Your task to perform on an android device: Open Chrome and go to settings Image 0: 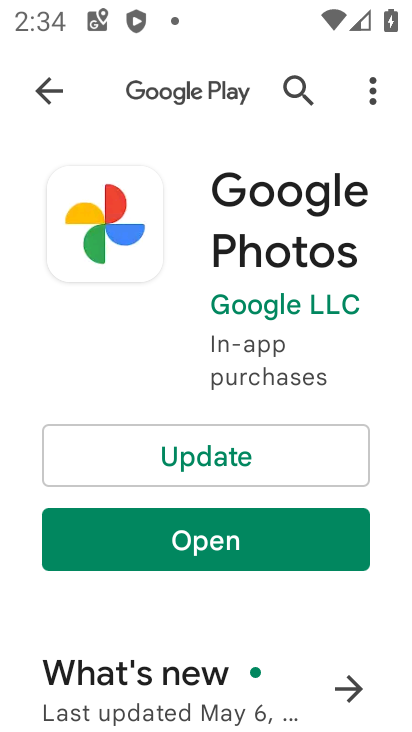
Step 0: press back button
Your task to perform on an android device: Open Chrome and go to settings Image 1: 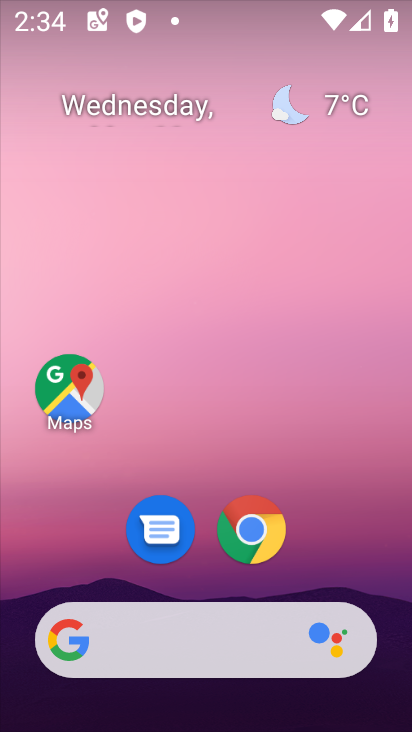
Step 1: click (242, 527)
Your task to perform on an android device: Open Chrome and go to settings Image 2: 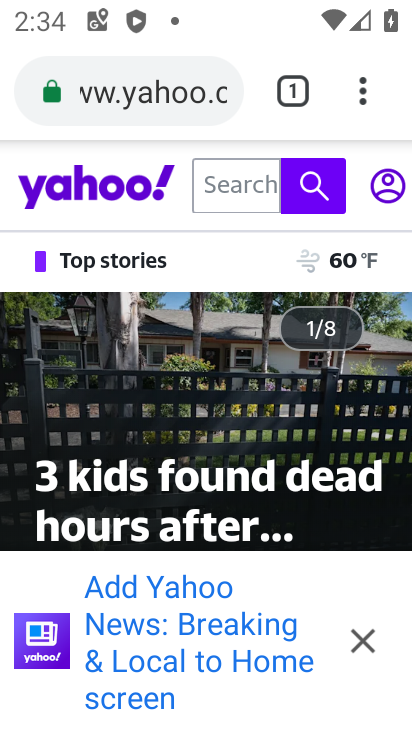
Step 2: click (369, 80)
Your task to perform on an android device: Open Chrome and go to settings Image 3: 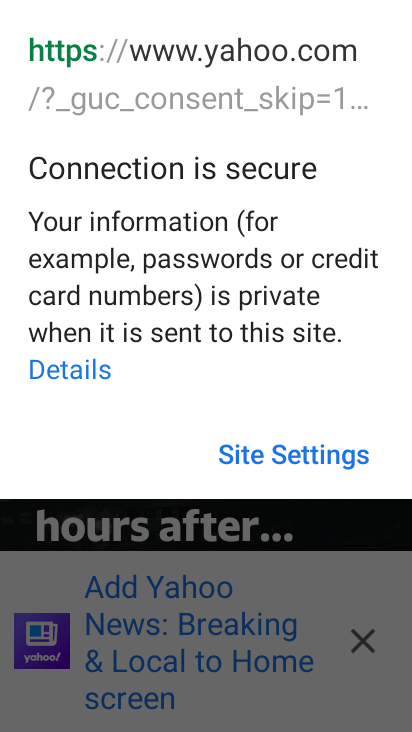
Step 3: press back button
Your task to perform on an android device: Open Chrome and go to settings Image 4: 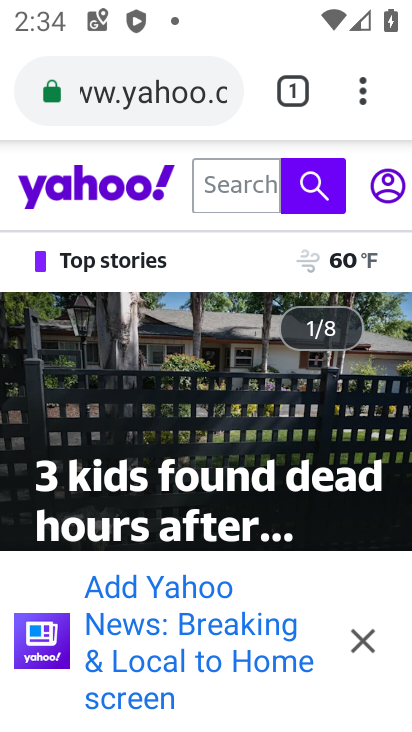
Step 4: click (355, 85)
Your task to perform on an android device: Open Chrome and go to settings Image 5: 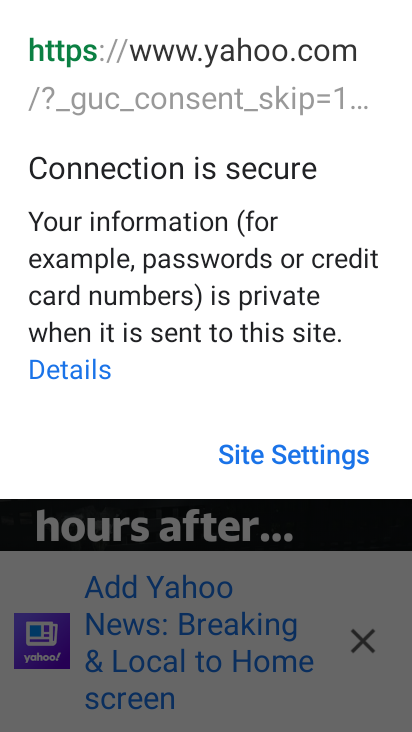
Step 5: press back button
Your task to perform on an android device: Open Chrome and go to settings Image 6: 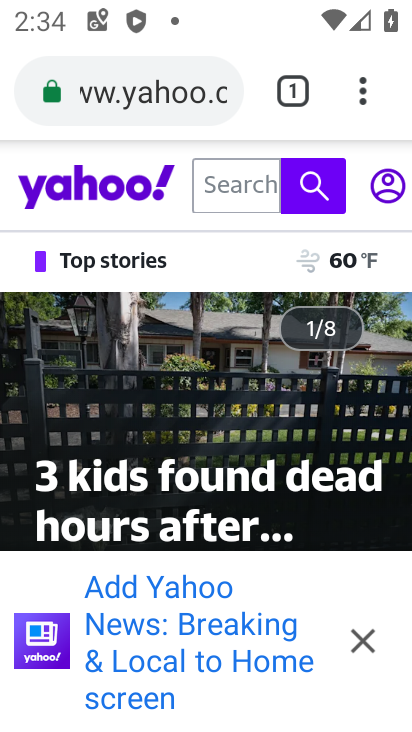
Step 6: click (358, 86)
Your task to perform on an android device: Open Chrome and go to settings Image 7: 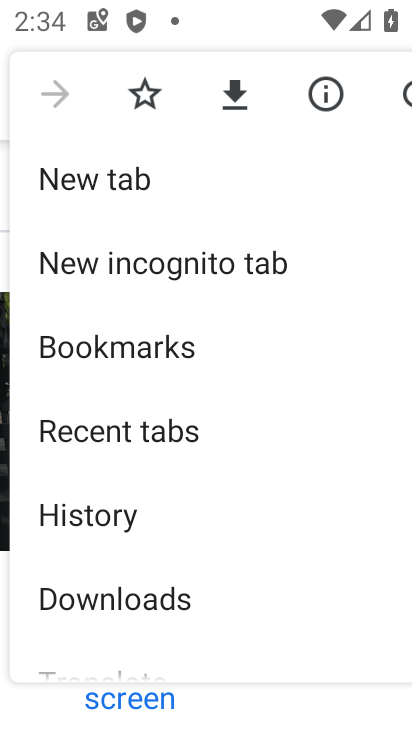
Step 7: drag from (151, 618) to (359, 146)
Your task to perform on an android device: Open Chrome and go to settings Image 8: 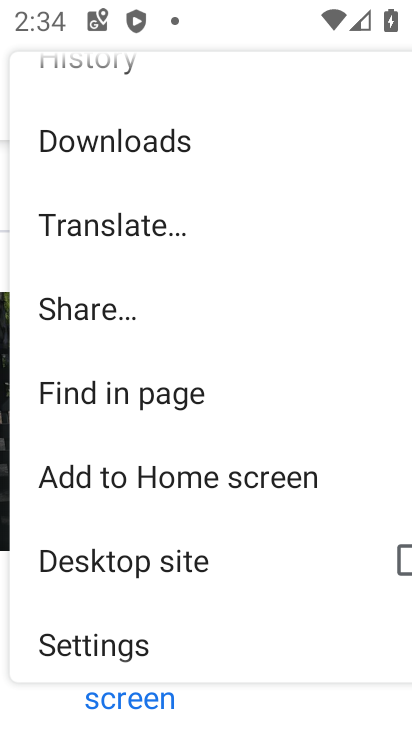
Step 8: click (99, 637)
Your task to perform on an android device: Open Chrome and go to settings Image 9: 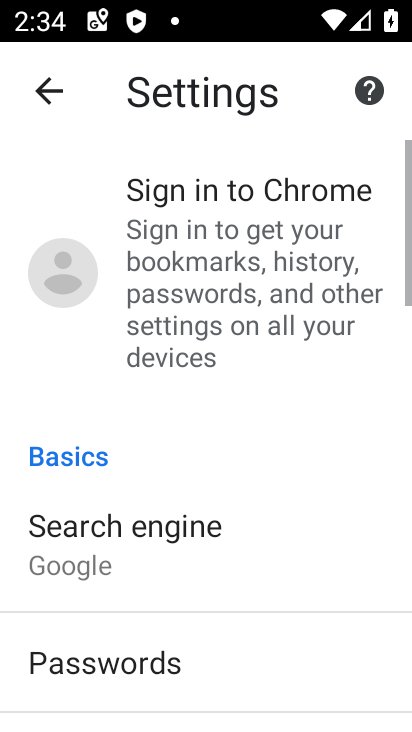
Step 9: task complete